Your task to perform on an android device: Go to display settings Image 0: 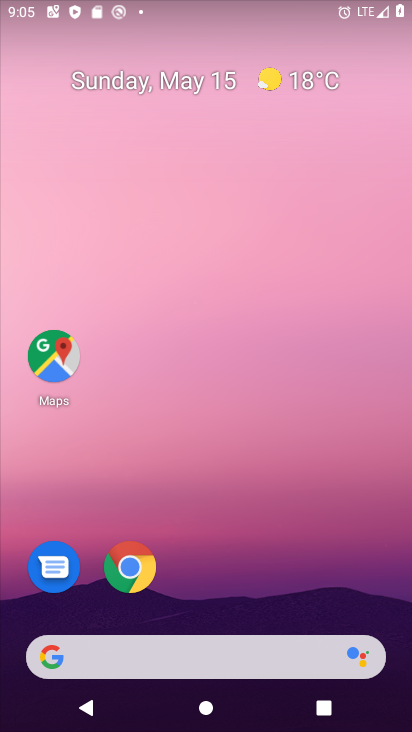
Step 0: click (366, 12)
Your task to perform on an android device: Go to display settings Image 1: 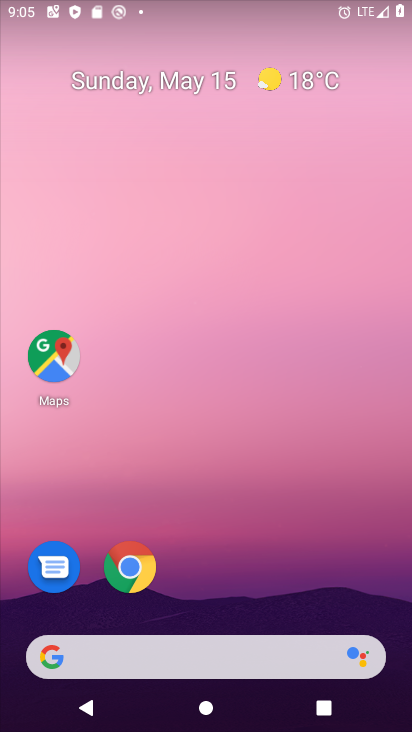
Step 1: drag from (272, 721) to (229, 90)
Your task to perform on an android device: Go to display settings Image 2: 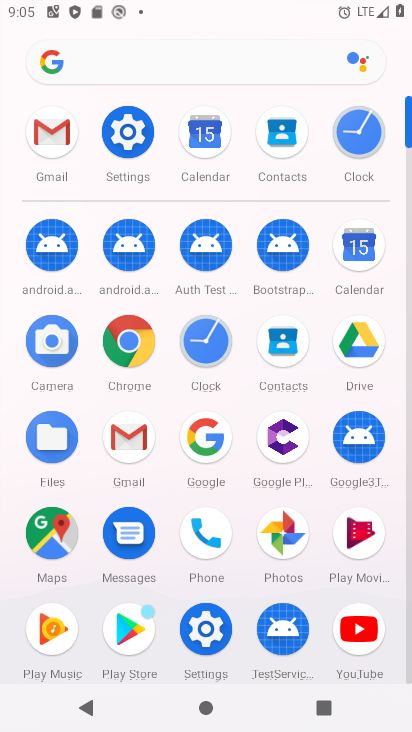
Step 2: click (117, 125)
Your task to perform on an android device: Go to display settings Image 3: 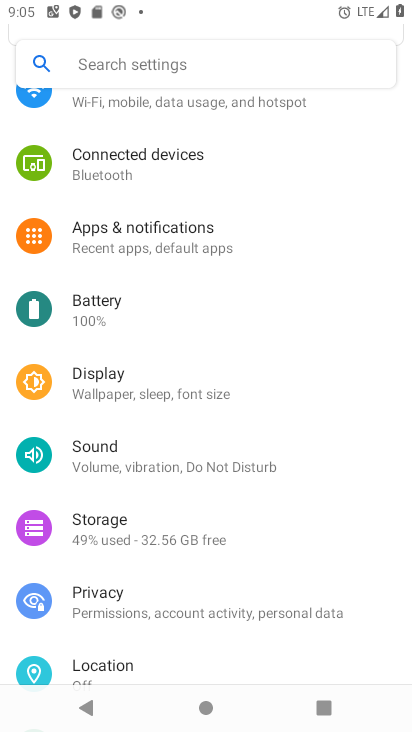
Step 3: click (180, 393)
Your task to perform on an android device: Go to display settings Image 4: 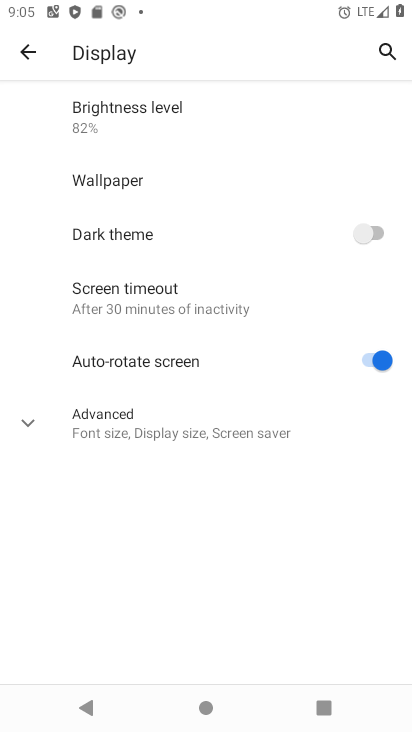
Step 4: task complete